Your task to perform on an android device: What is the recent news? Image 0: 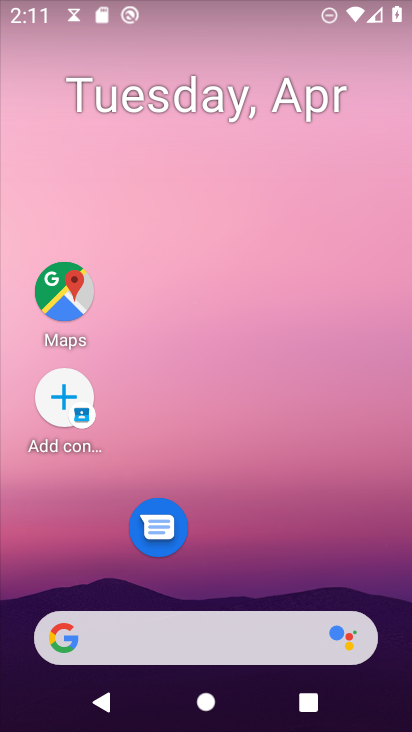
Step 0: drag from (280, 555) to (258, 12)
Your task to perform on an android device: What is the recent news? Image 1: 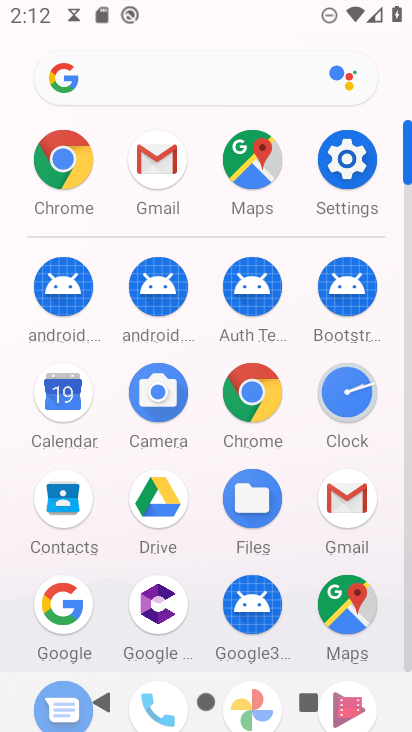
Step 1: click (66, 606)
Your task to perform on an android device: What is the recent news? Image 2: 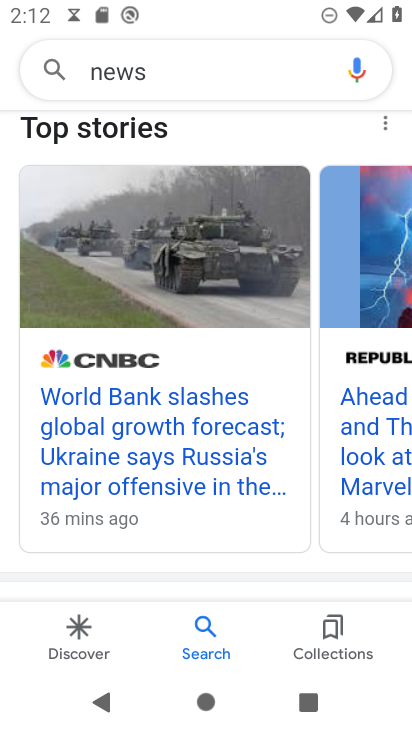
Step 2: drag from (184, 291) to (217, 494)
Your task to perform on an android device: What is the recent news? Image 3: 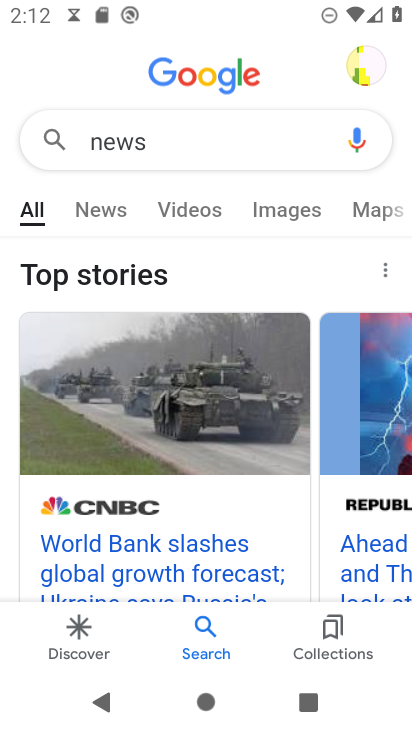
Step 3: click (174, 149)
Your task to perform on an android device: What is the recent news? Image 4: 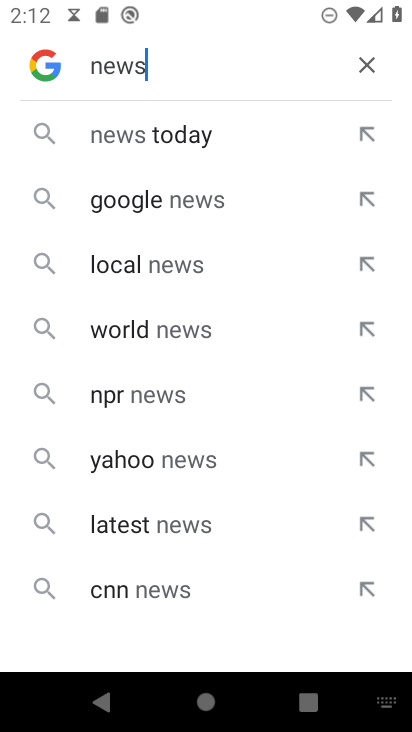
Step 4: click (144, 143)
Your task to perform on an android device: What is the recent news? Image 5: 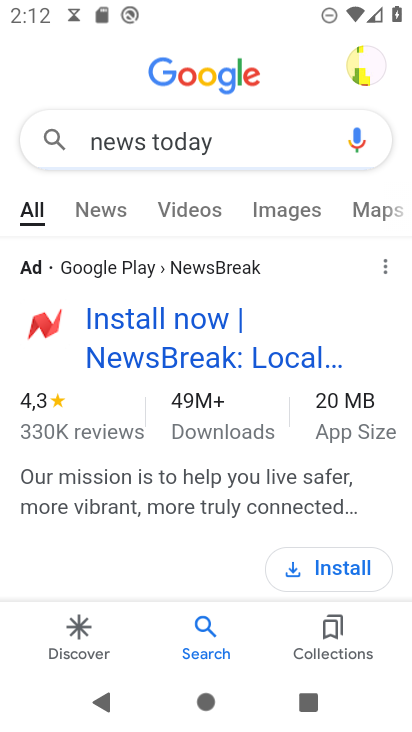
Step 5: drag from (100, 523) to (167, 234)
Your task to perform on an android device: What is the recent news? Image 6: 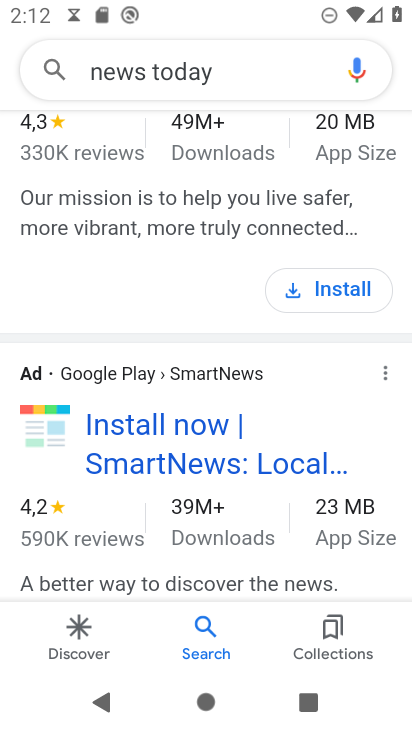
Step 6: drag from (134, 521) to (199, 162)
Your task to perform on an android device: What is the recent news? Image 7: 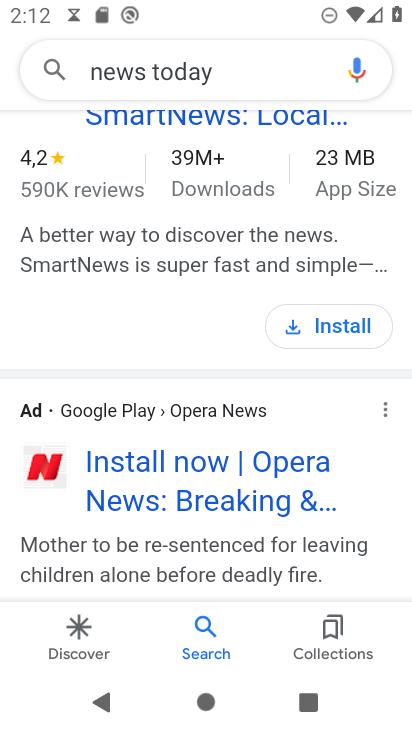
Step 7: drag from (152, 500) to (195, 191)
Your task to perform on an android device: What is the recent news? Image 8: 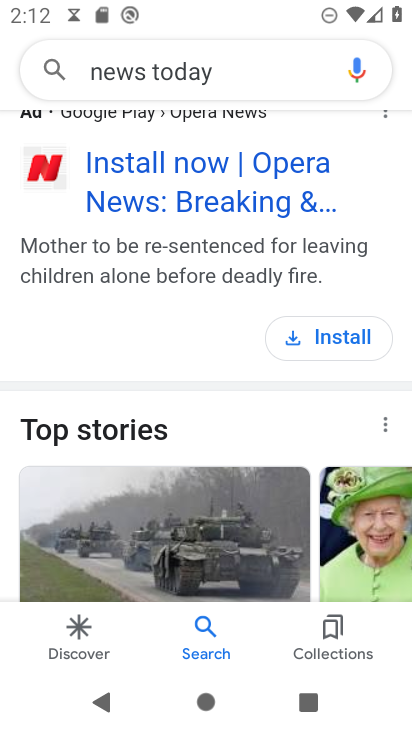
Step 8: drag from (173, 453) to (213, 230)
Your task to perform on an android device: What is the recent news? Image 9: 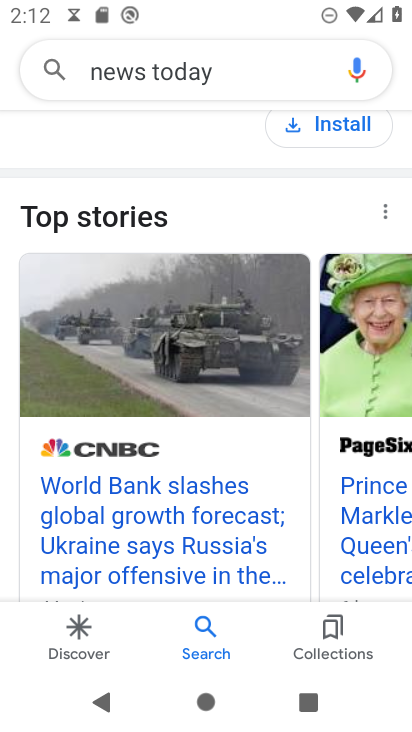
Step 9: drag from (173, 417) to (182, 277)
Your task to perform on an android device: What is the recent news? Image 10: 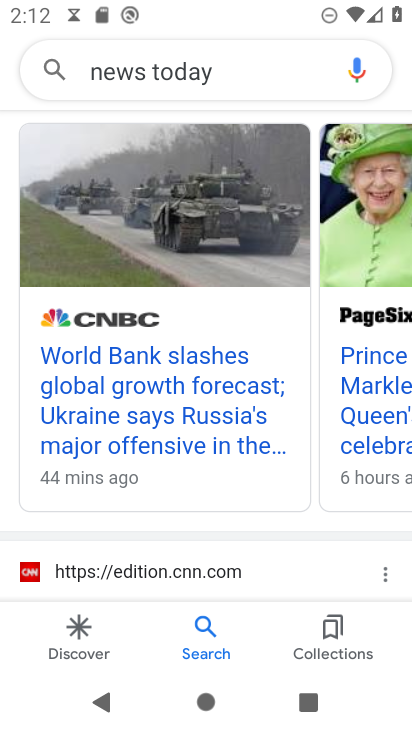
Step 10: click (189, 242)
Your task to perform on an android device: What is the recent news? Image 11: 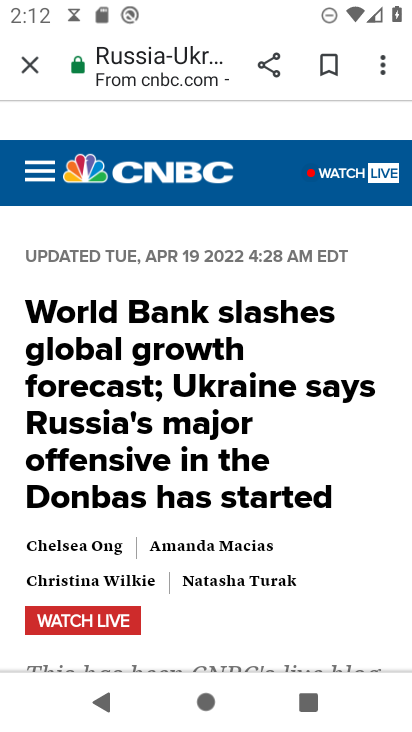
Step 11: task complete